Your task to perform on an android device: open app "NewsBreak: Local News & Alerts" Image 0: 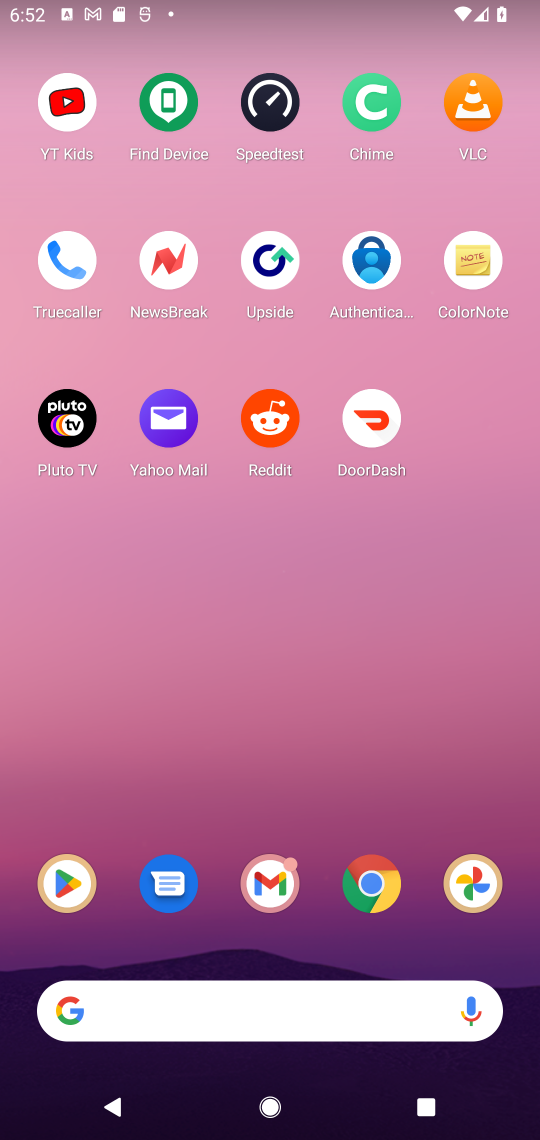
Step 0: click (73, 881)
Your task to perform on an android device: open app "NewsBreak: Local News & Alerts" Image 1: 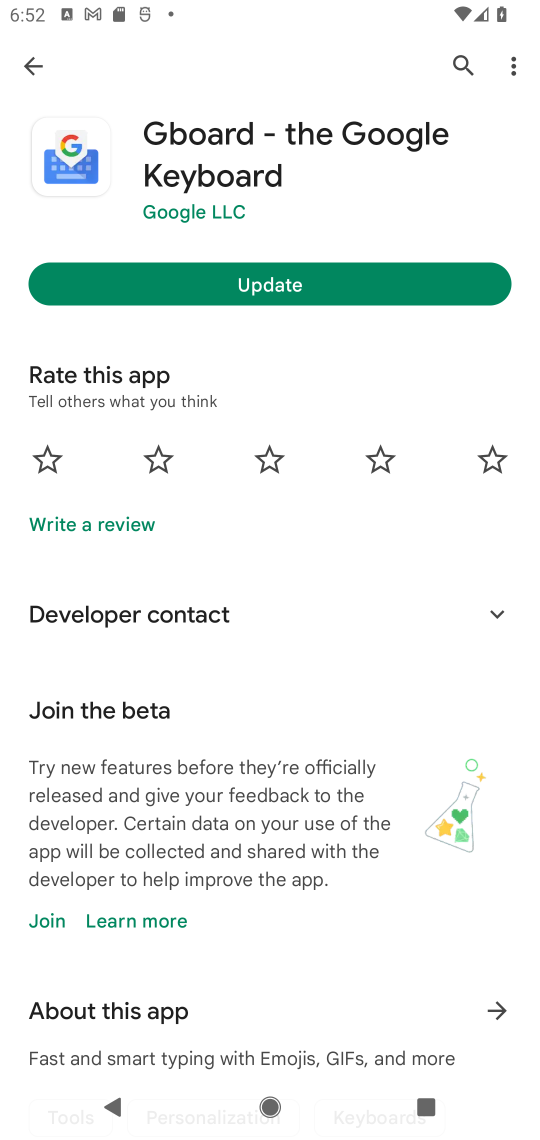
Step 1: click (454, 69)
Your task to perform on an android device: open app "NewsBreak: Local News & Alerts" Image 2: 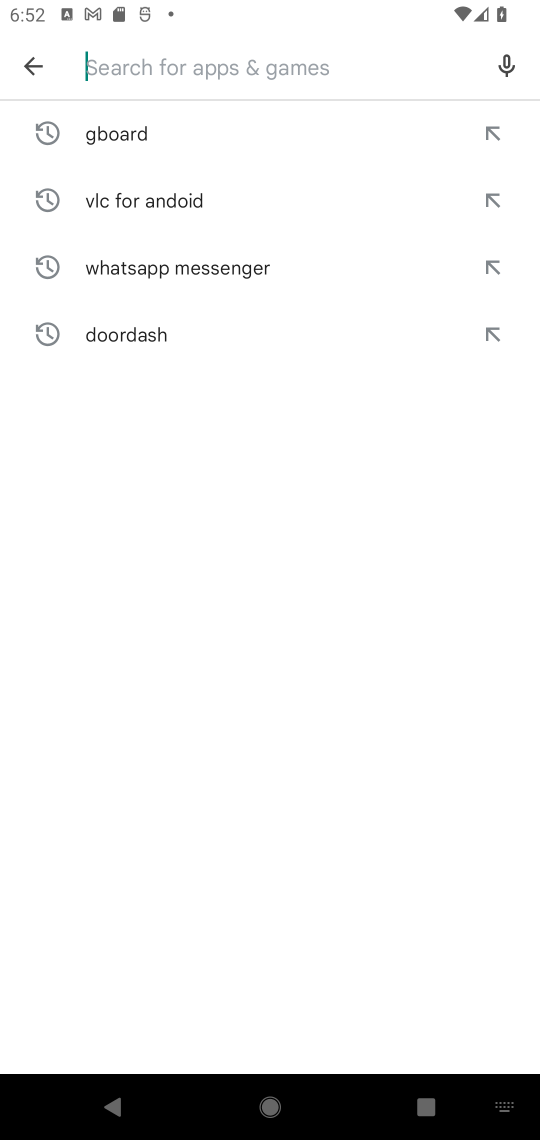
Step 2: click (248, 53)
Your task to perform on an android device: open app "NewsBreak: Local News & Alerts" Image 3: 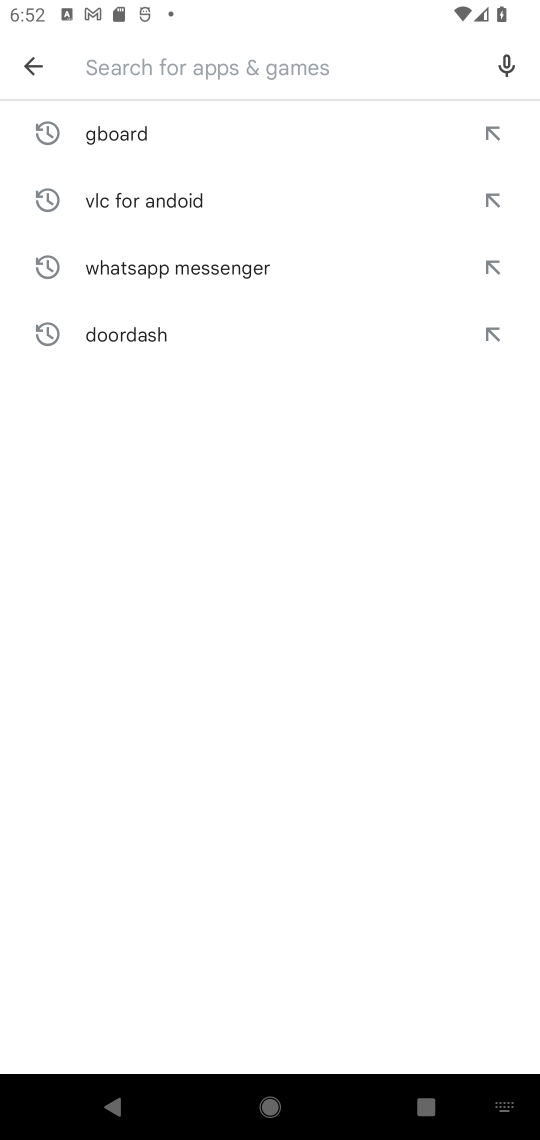
Step 3: type "news break"
Your task to perform on an android device: open app "NewsBreak: Local News & Alerts" Image 4: 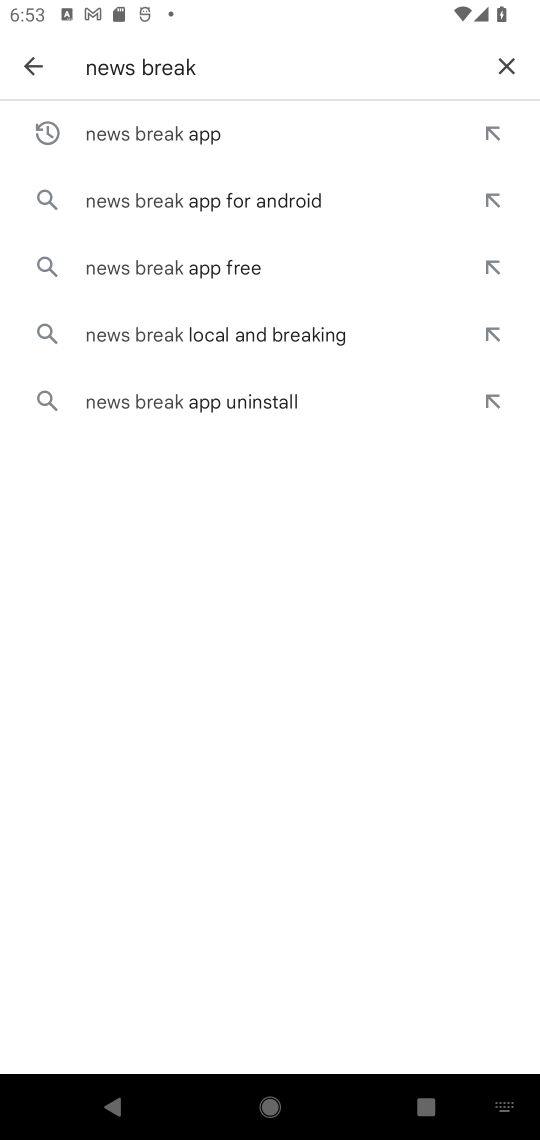
Step 4: click (196, 139)
Your task to perform on an android device: open app "NewsBreak: Local News & Alerts" Image 5: 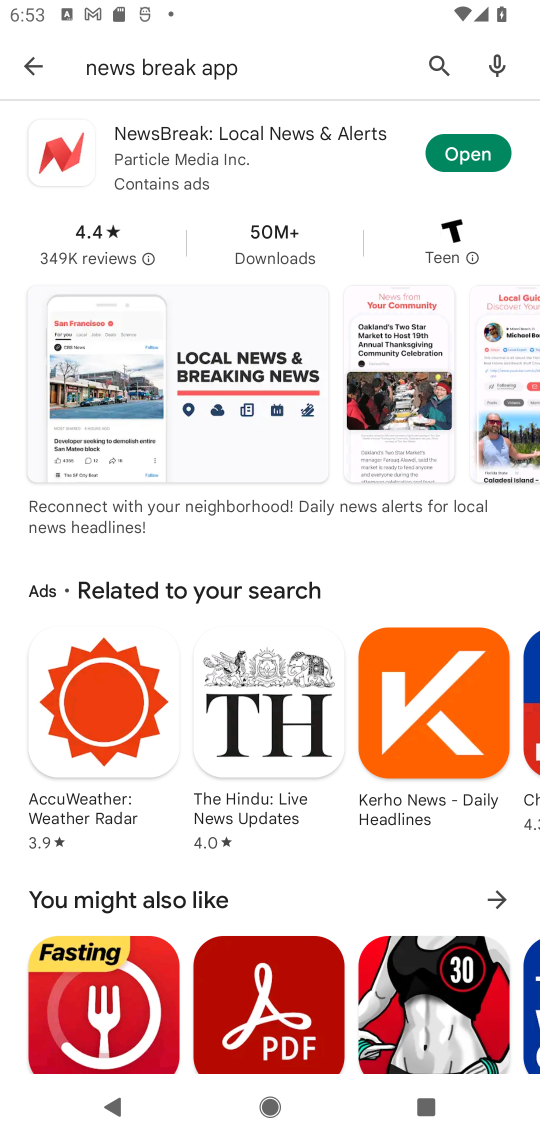
Step 5: click (470, 156)
Your task to perform on an android device: open app "NewsBreak: Local News & Alerts" Image 6: 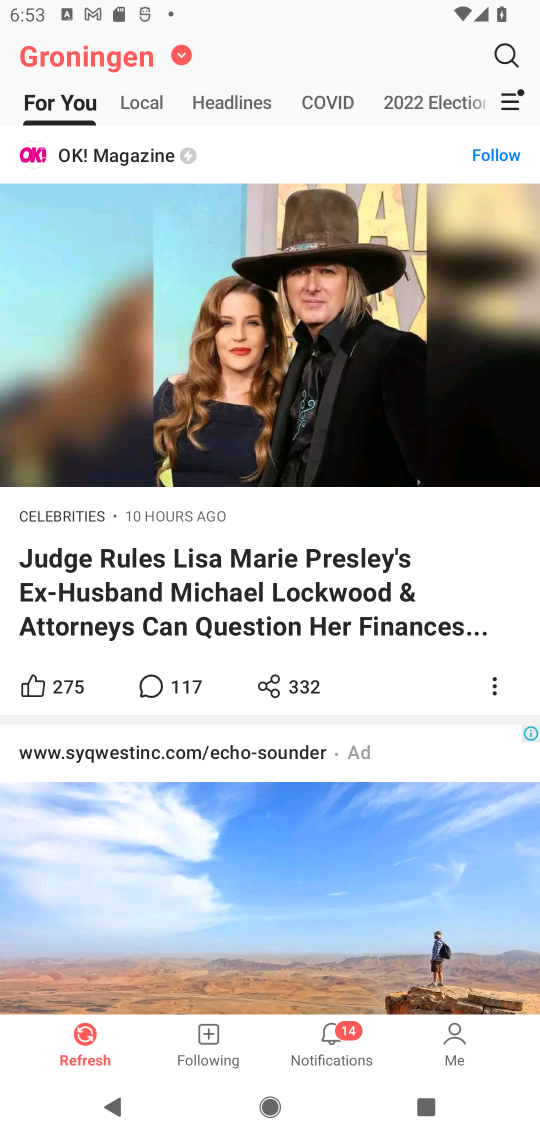
Step 6: task complete